Your task to perform on an android device: turn off javascript in the chrome app Image 0: 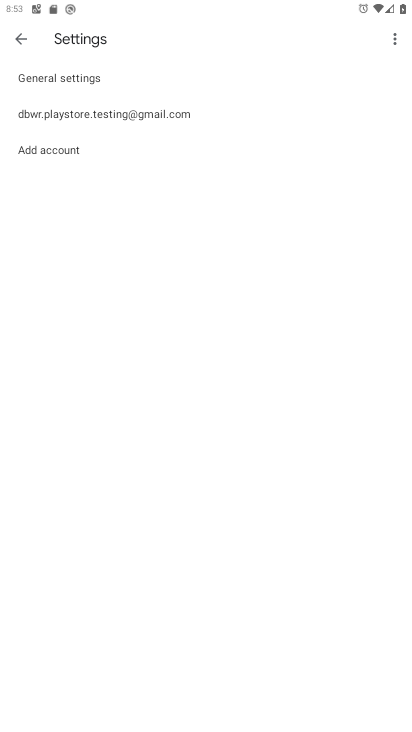
Step 0: press home button
Your task to perform on an android device: turn off javascript in the chrome app Image 1: 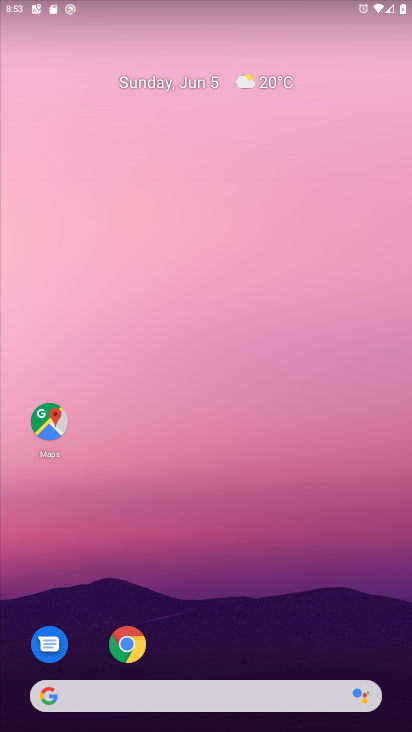
Step 1: drag from (359, 627) to (320, 213)
Your task to perform on an android device: turn off javascript in the chrome app Image 2: 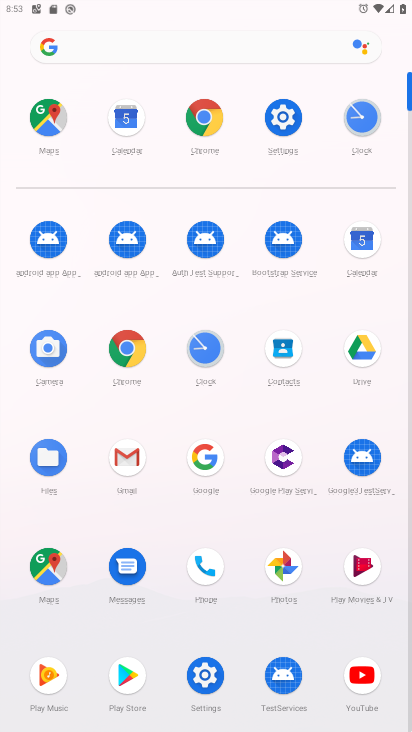
Step 2: click (123, 358)
Your task to perform on an android device: turn off javascript in the chrome app Image 3: 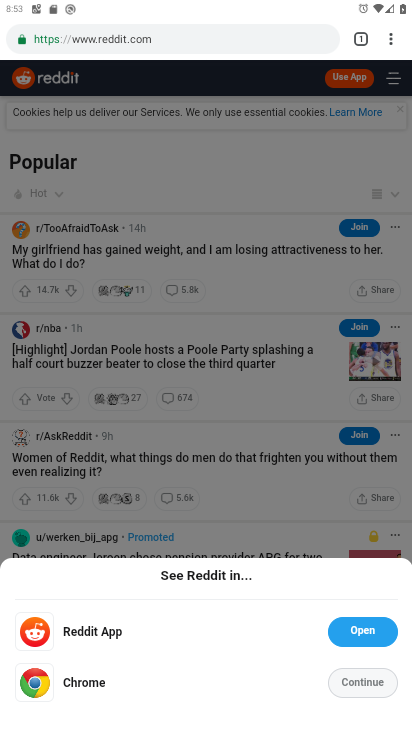
Step 3: drag from (390, 48) to (240, 462)
Your task to perform on an android device: turn off javascript in the chrome app Image 4: 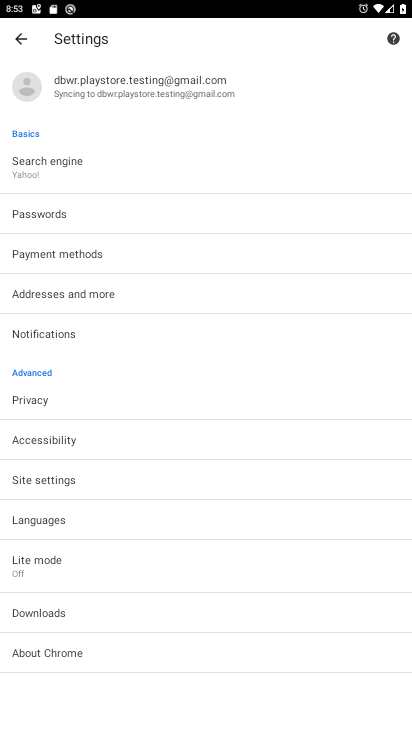
Step 4: click (49, 479)
Your task to perform on an android device: turn off javascript in the chrome app Image 5: 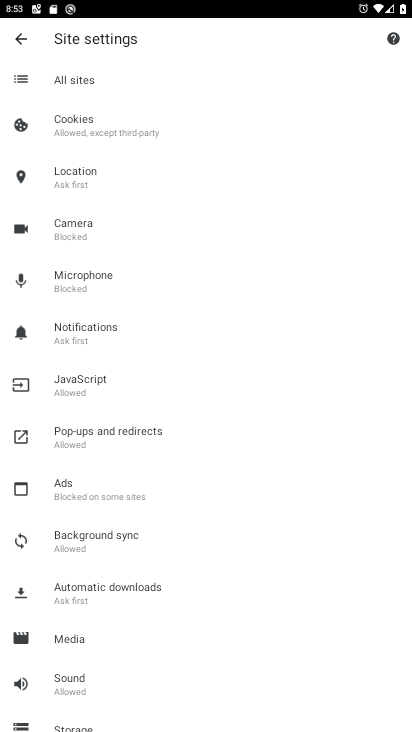
Step 5: click (96, 390)
Your task to perform on an android device: turn off javascript in the chrome app Image 6: 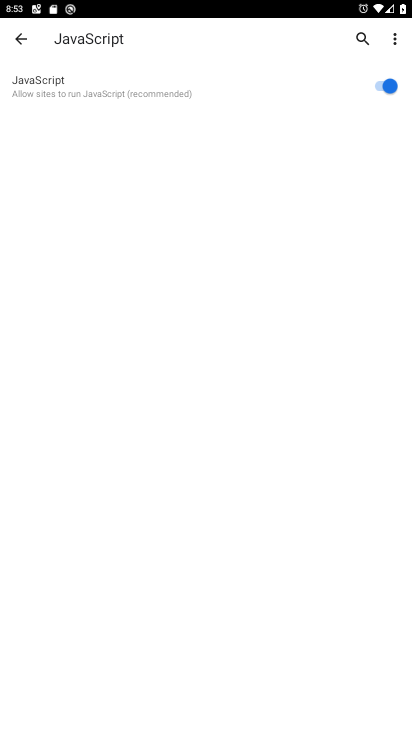
Step 6: click (381, 83)
Your task to perform on an android device: turn off javascript in the chrome app Image 7: 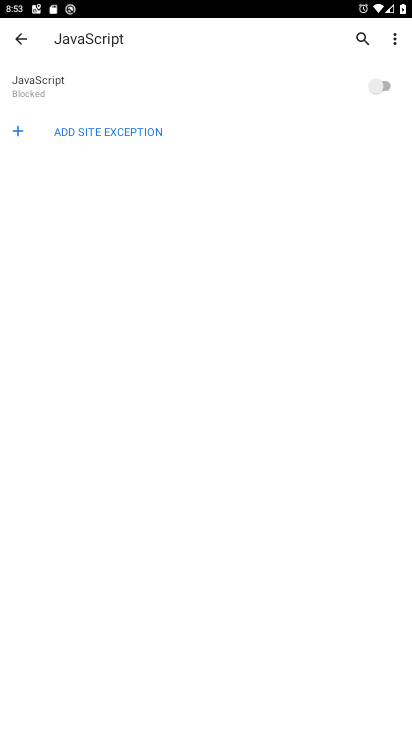
Step 7: task complete